Your task to perform on an android device: View the shopping cart on ebay. Search for "macbook pro" on ebay, select the first entry, add it to the cart, then select checkout. Image 0: 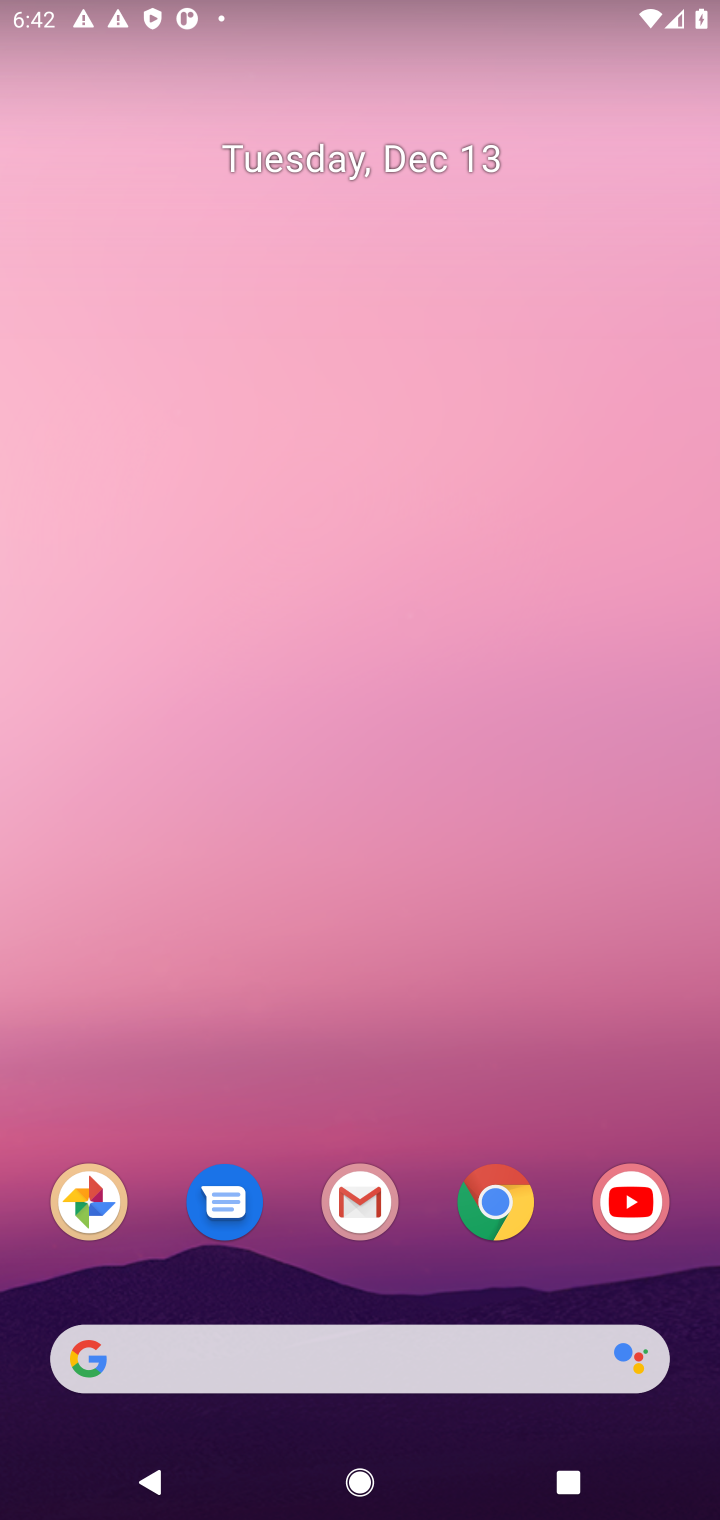
Step 0: click (503, 1207)
Your task to perform on an android device: View the shopping cart on ebay. Search for "macbook pro" on ebay, select the first entry, add it to the cart, then select checkout. Image 1: 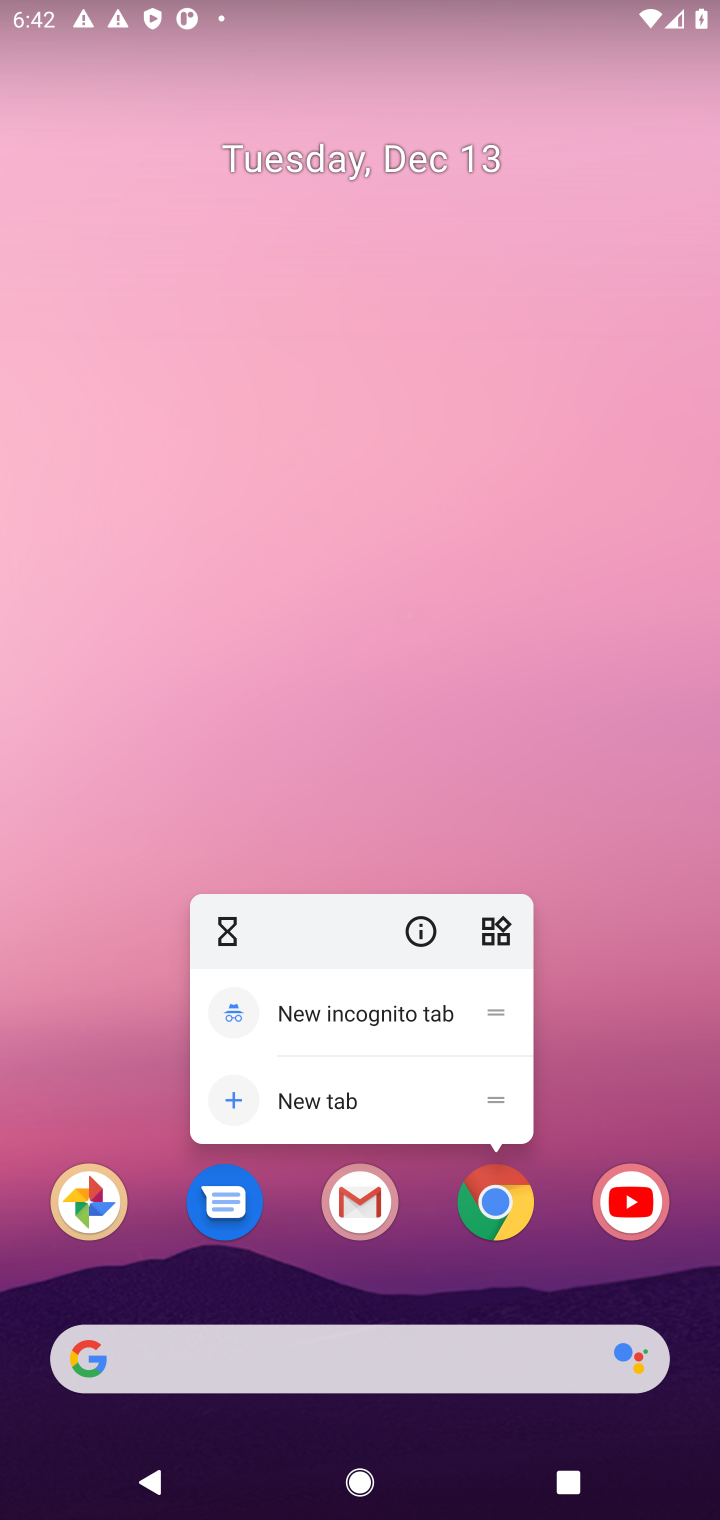
Step 1: click (503, 1207)
Your task to perform on an android device: View the shopping cart on ebay. Search for "macbook pro" on ebay, select the first entry, add it to the cart, then select checkout. Image 2: 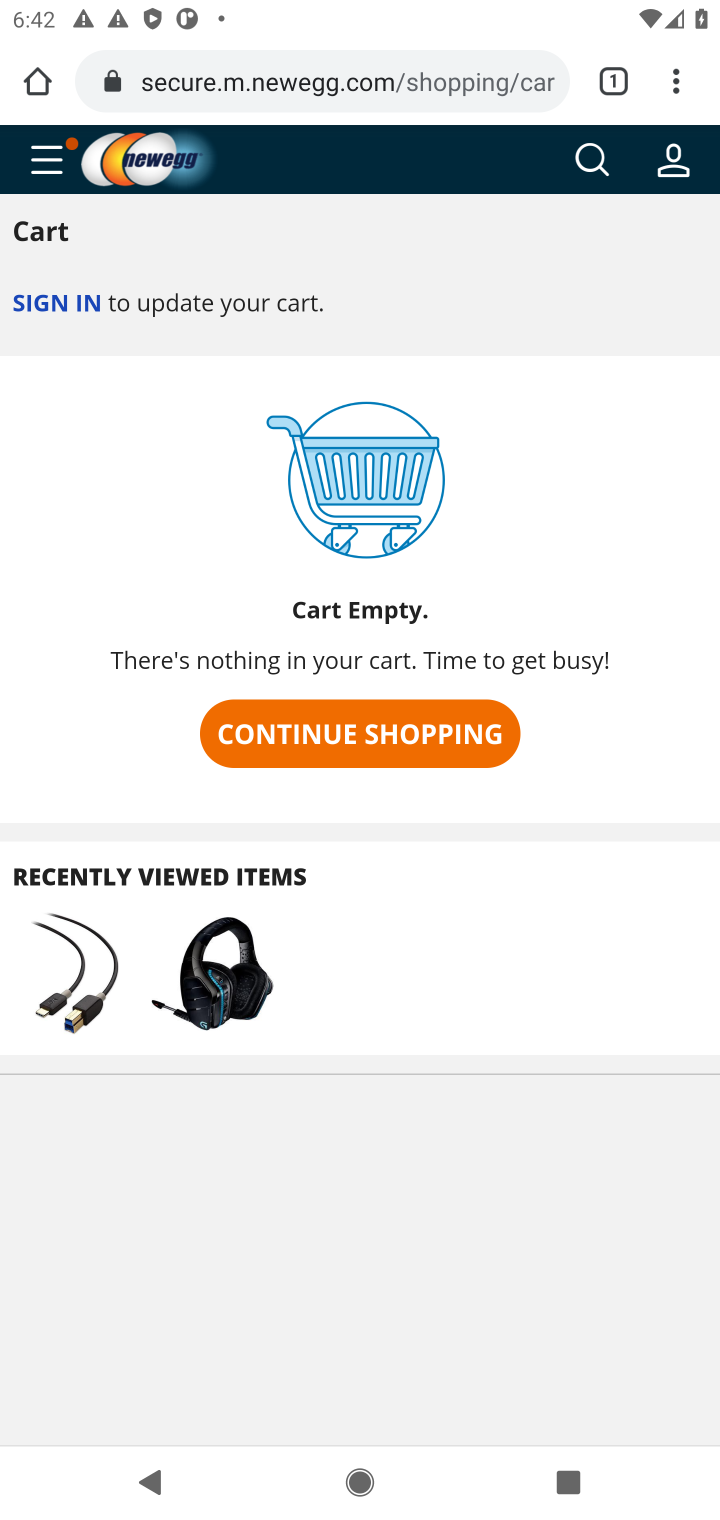
Step 2: click (332, 88)
Your task to perform on an android device: View the shopping cart on ebay. Search for "macbook pro" on ebay, select the first entry, add it to the cart, then select checkout. Image 3: 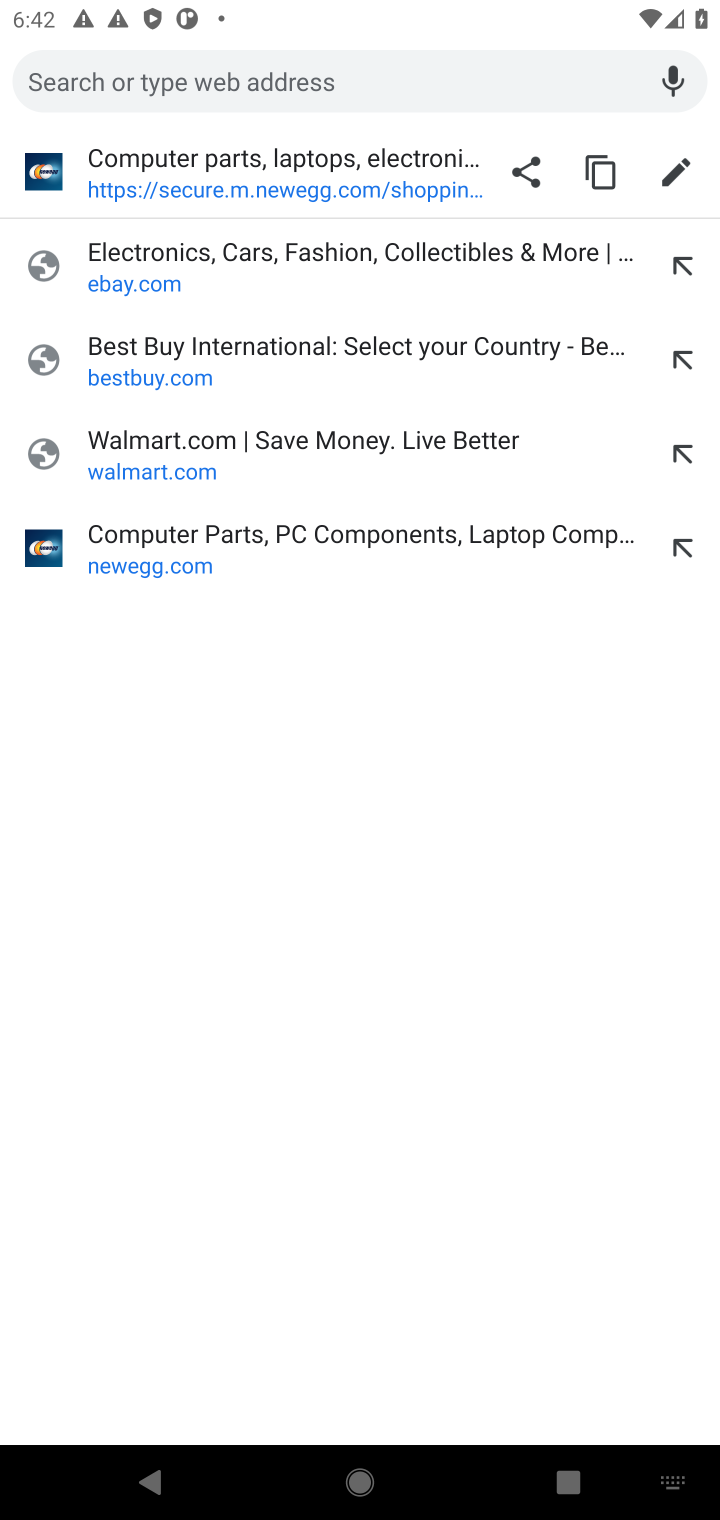
Step 3: click (141, 273)
Your task to perform on an android device: View the shopping cart on ebay. Search for "macbook pro" on ebay, select the first entry, add it to the cart, then select checkout. Image 4: 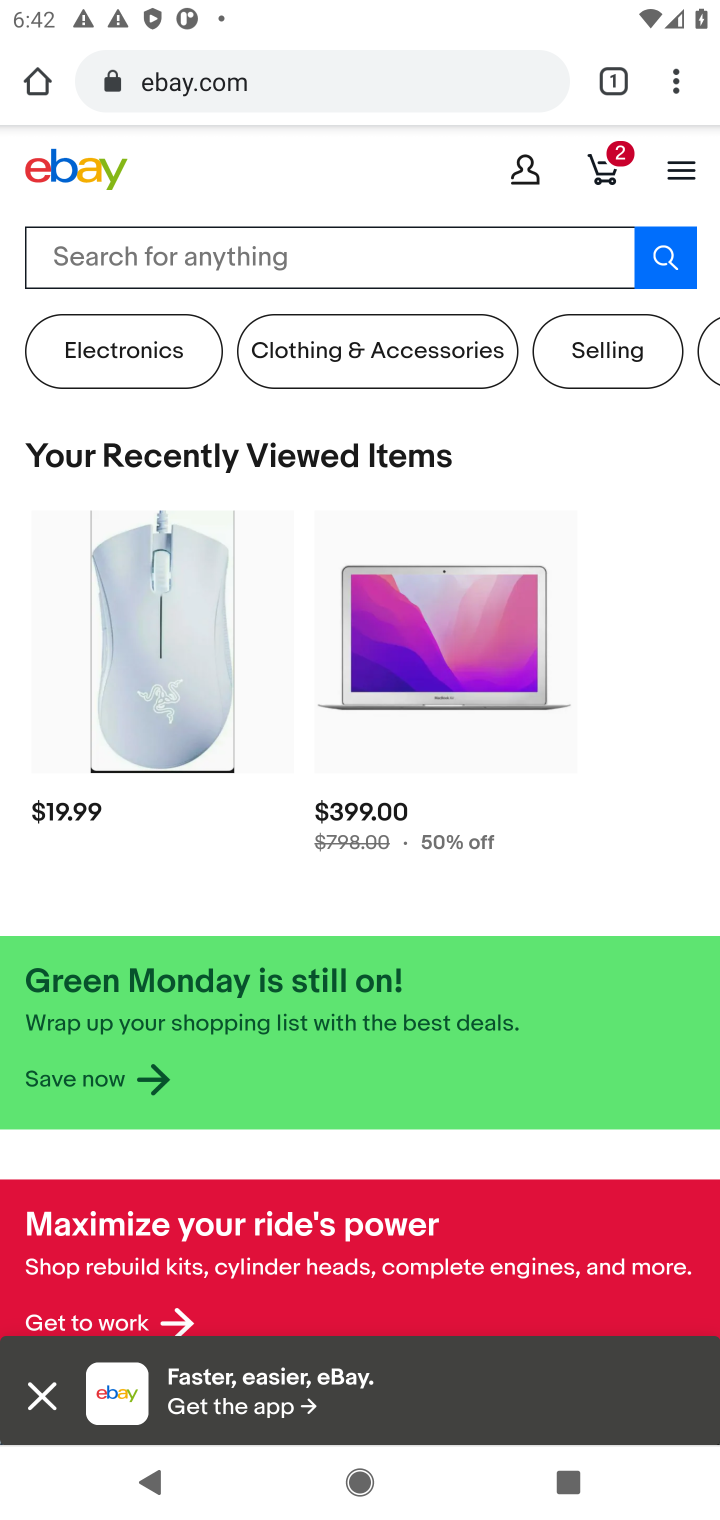
Step 4: click (605, 174)
Your task to perform on an android device: View the shopping cart on ebay. Search for "macbook pro" on ebay, select the first entry, add it to the cart, then select checkout. Image 5: 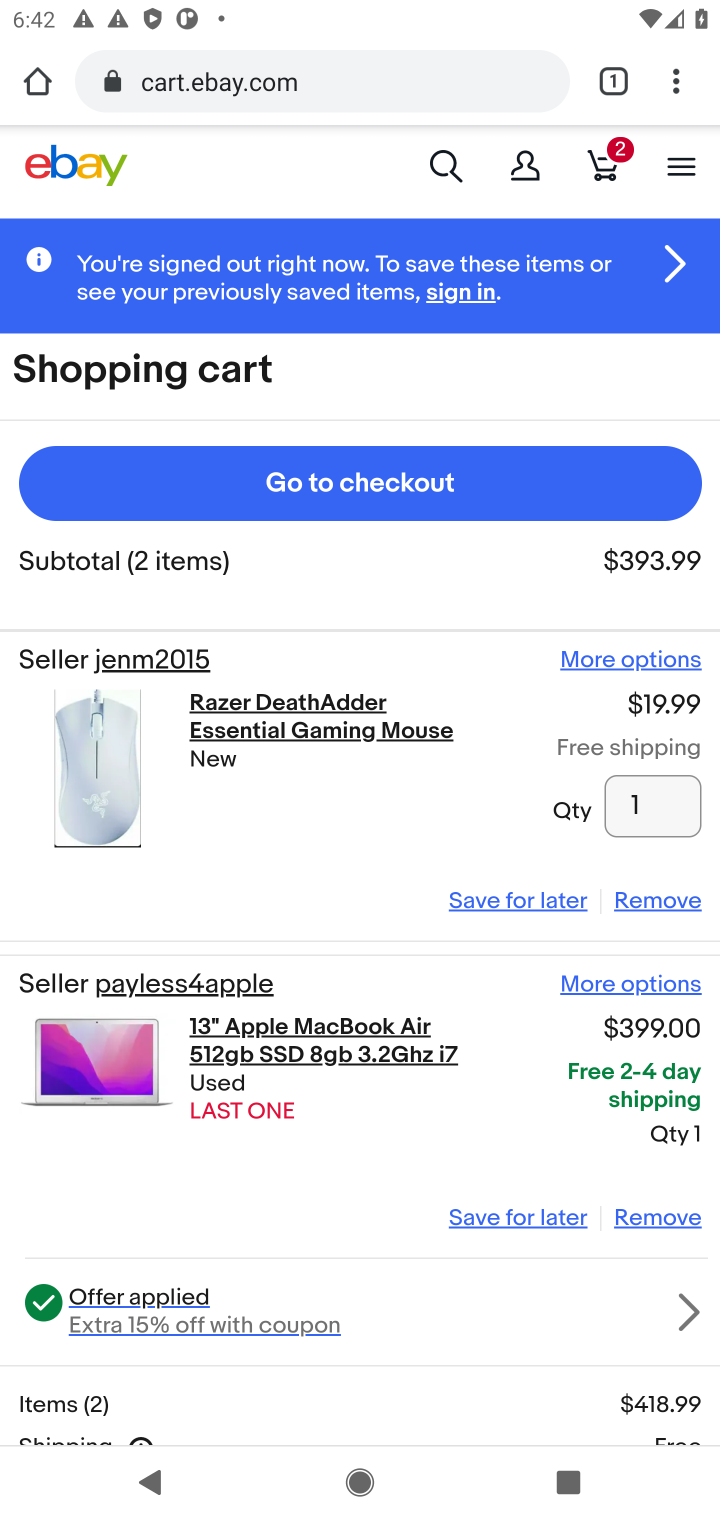
Step 5: click (440, 172)
Your task to perform on an android device: View the shopping cart on ebay. Search for "macbook pro" on ebay, select the first entry, add it to the cart, then select checkout. Image 6: 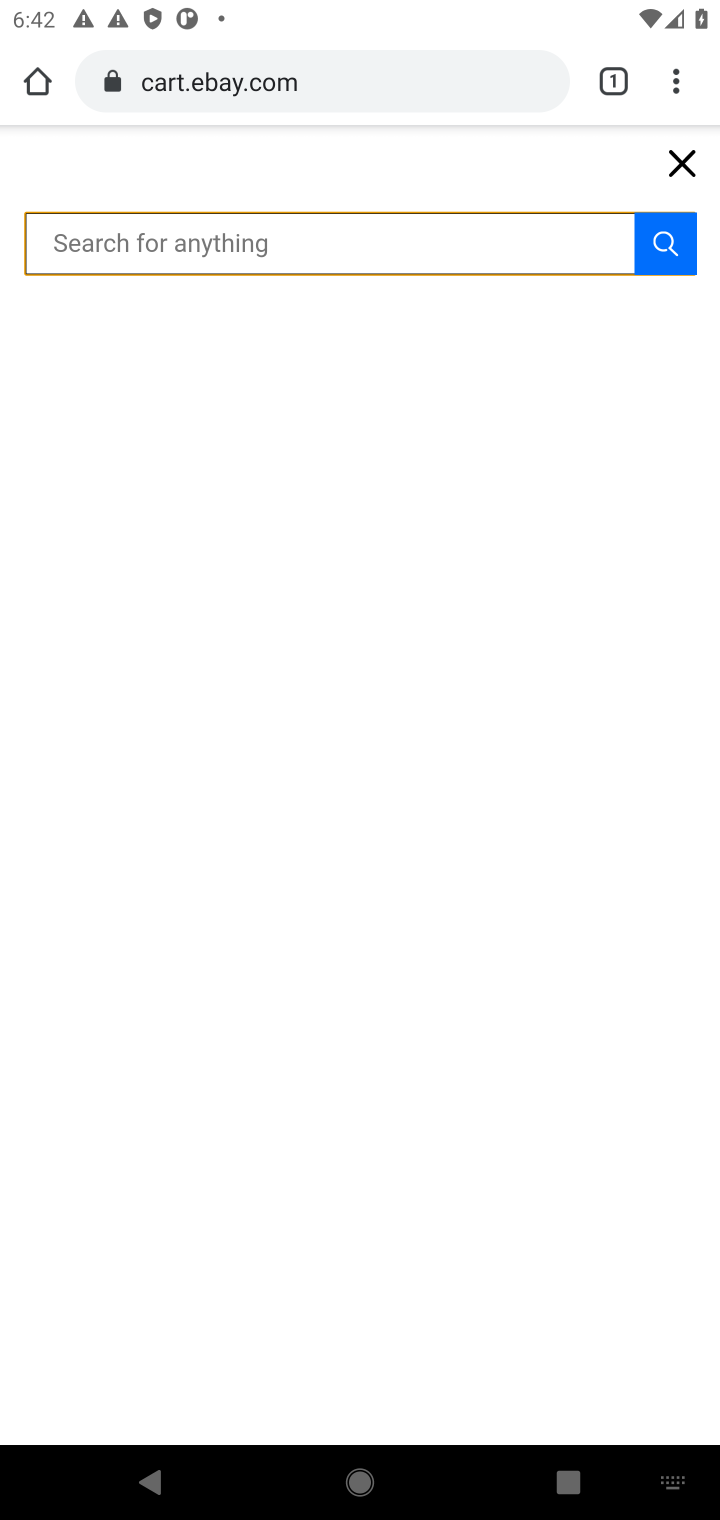
Step 6: type "macbook pro"
Your task to perform on an android device: View the shopping cart on ebay. Search for "macbook pro" on ebay, select the first entry, add it to the cart, then select checkout. Image 7: 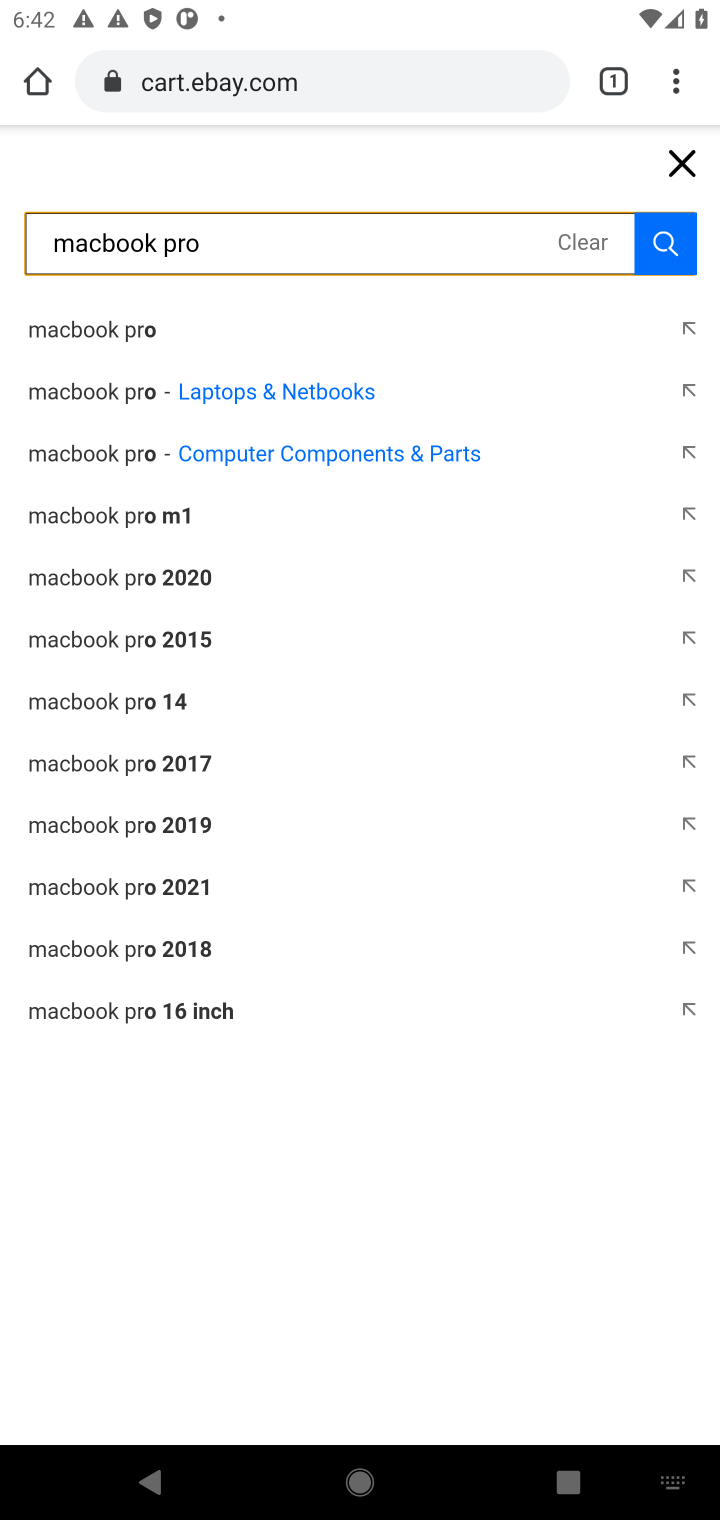
Step 7: click (63, 337)
Your task to perform on an android device: View the shopping cart on ebay. Search for "macbook pro" on ebay, select the first entry, add it to the cart, then select checkout. Image 8: 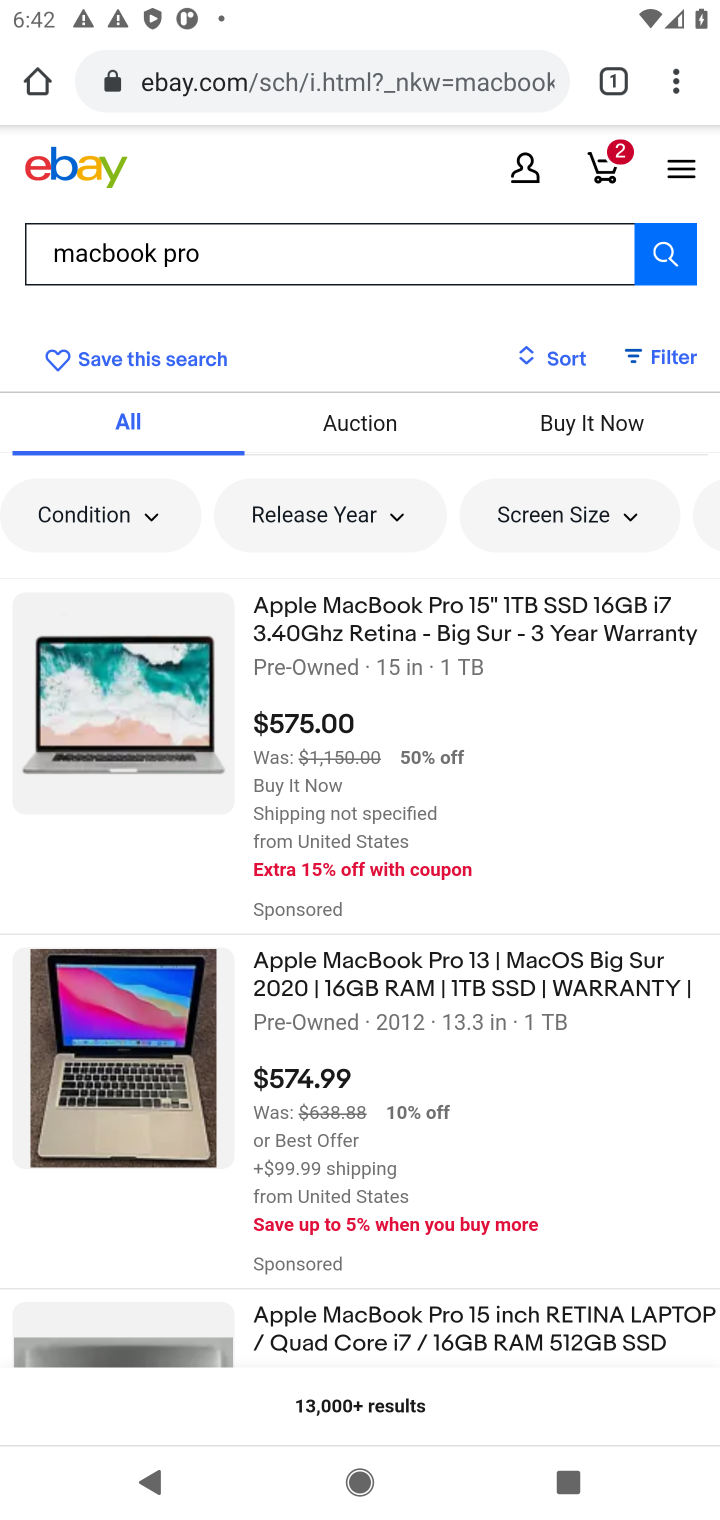
Step 8: click (320, 650)
Your task to perform on an android device: View the shopping cart on ebay. Search for "macbook pro" on ebay, select the first entry, add it to the cart, then select checkout. Image 9: 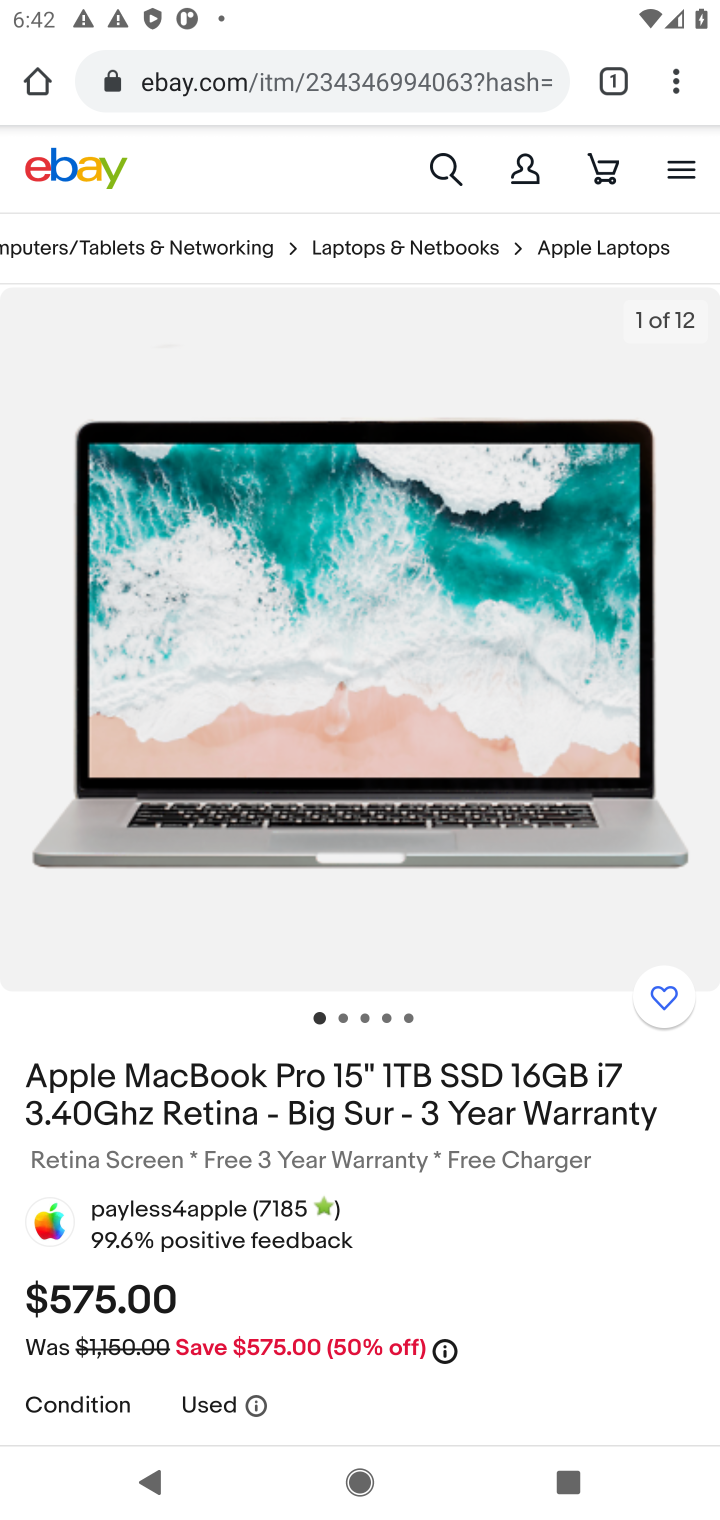
Step 9: drag from (364, 1211) to (361, 584)
Your task to perform on an android device: View the shopping cart on ebay. Search for "macbook pro" on ebay, select the first entry, add it to the cart, then select checkout. Image 10: 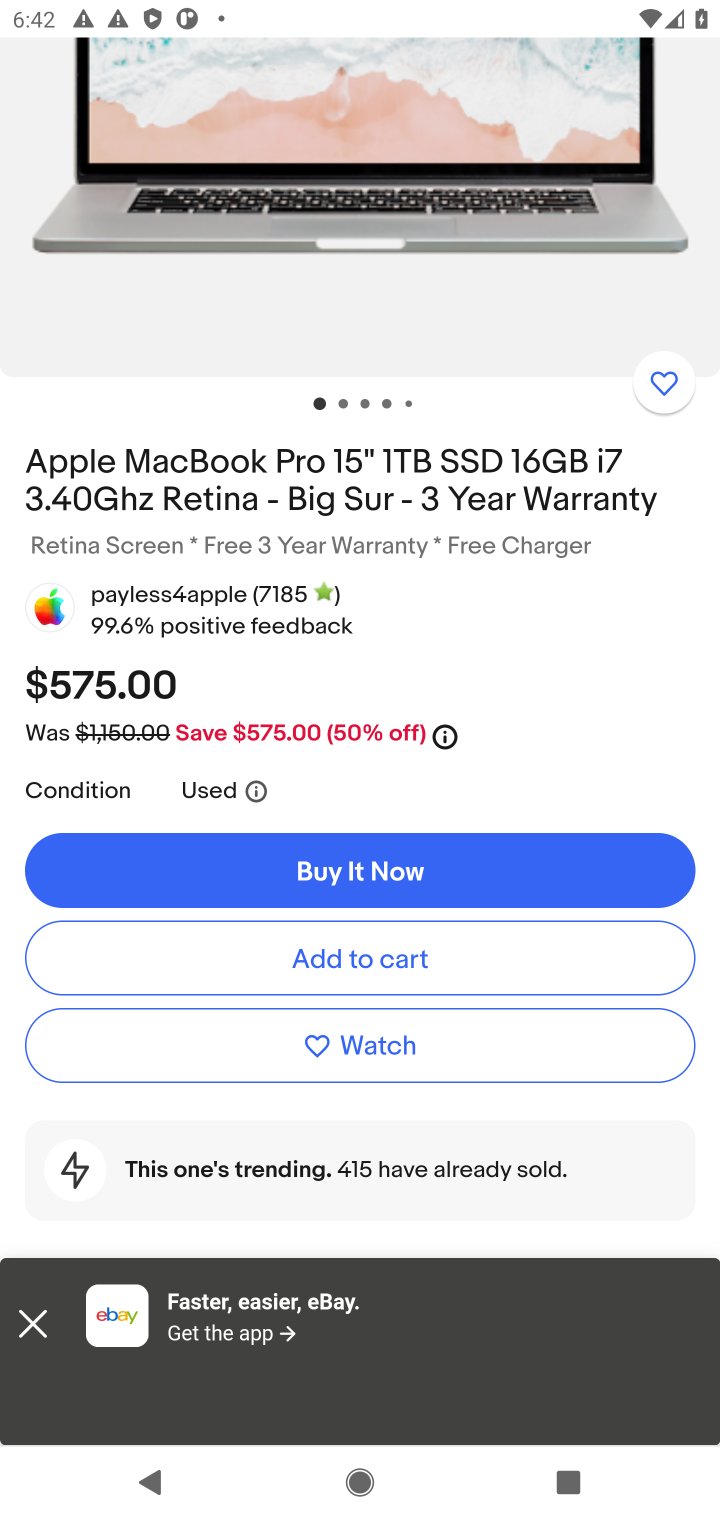
Step 10: click (306, 958)
Your task to perform on an android device: View the shopping cart on ebay. Search for "macbook pro" on ebay, select the first entry, add it to the cart, then select checkout. Image 11: 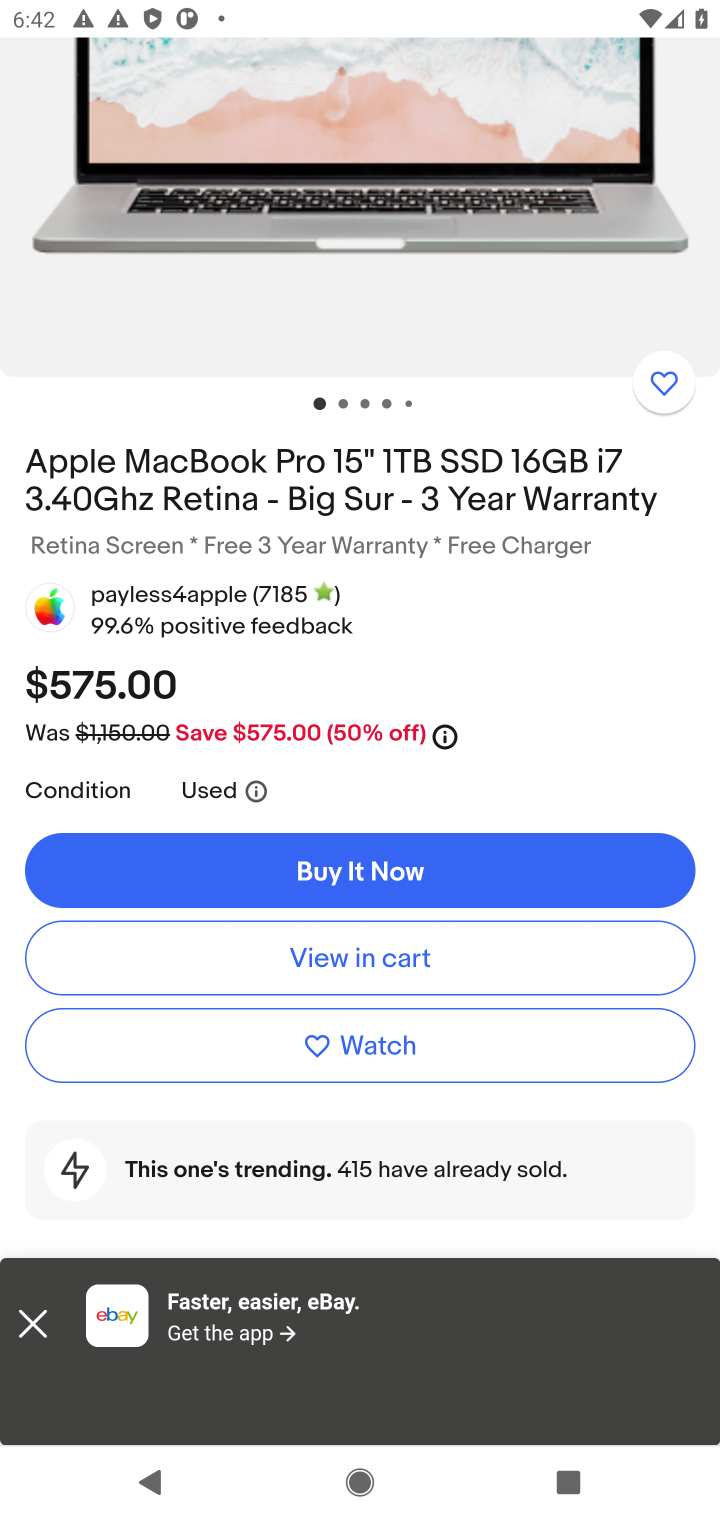
Step 11: click (306, 958)
Your task to perform on an android device: View the shopping cart on ebay. Search for "macbook pro" on ebay, select the first entry, add it to the cart, then select checkout. Image 12: 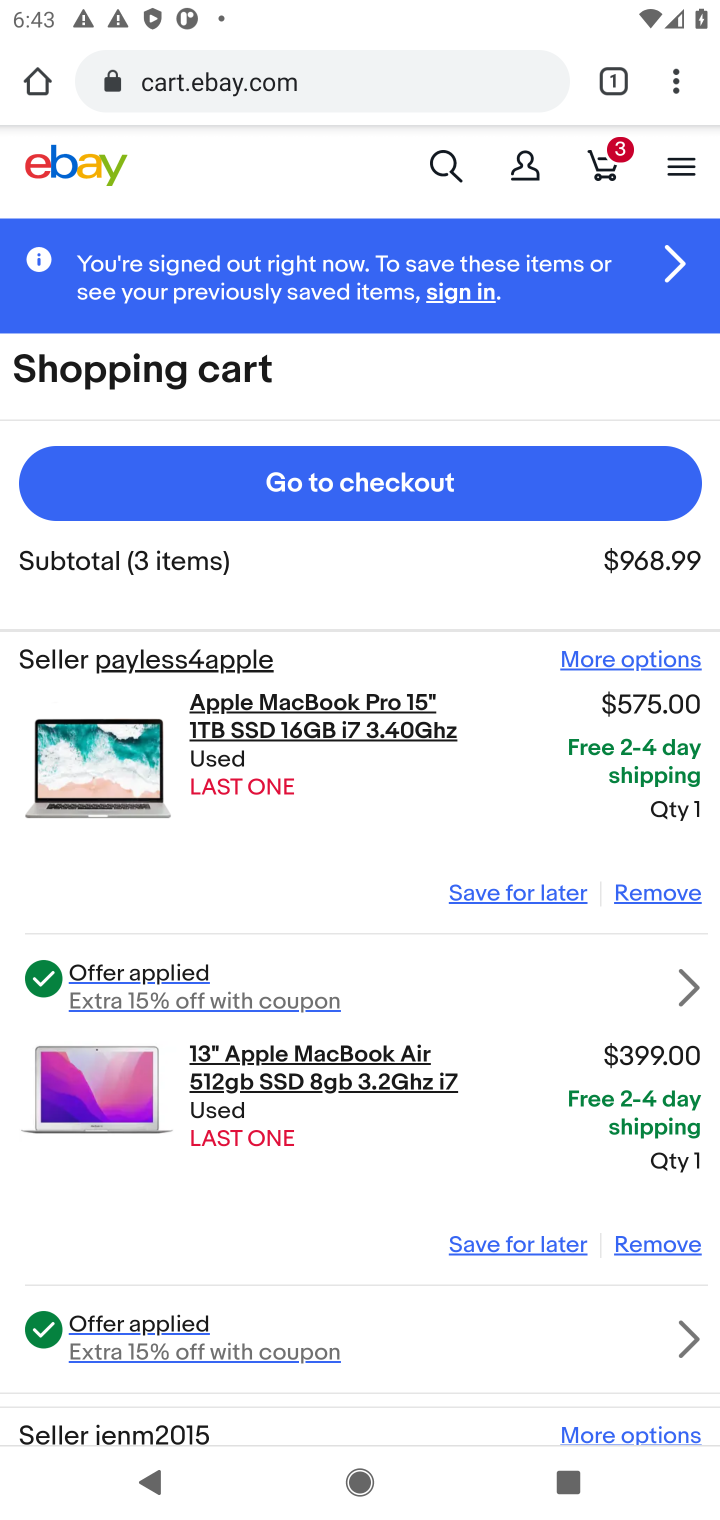
Step 12: click (304, 485)
Your task to perform on an android device: View the shopping cart on ebay. Search for "macbook pro" on ebay, select the first entry, add it to the cart, then select checkout. Image 13: 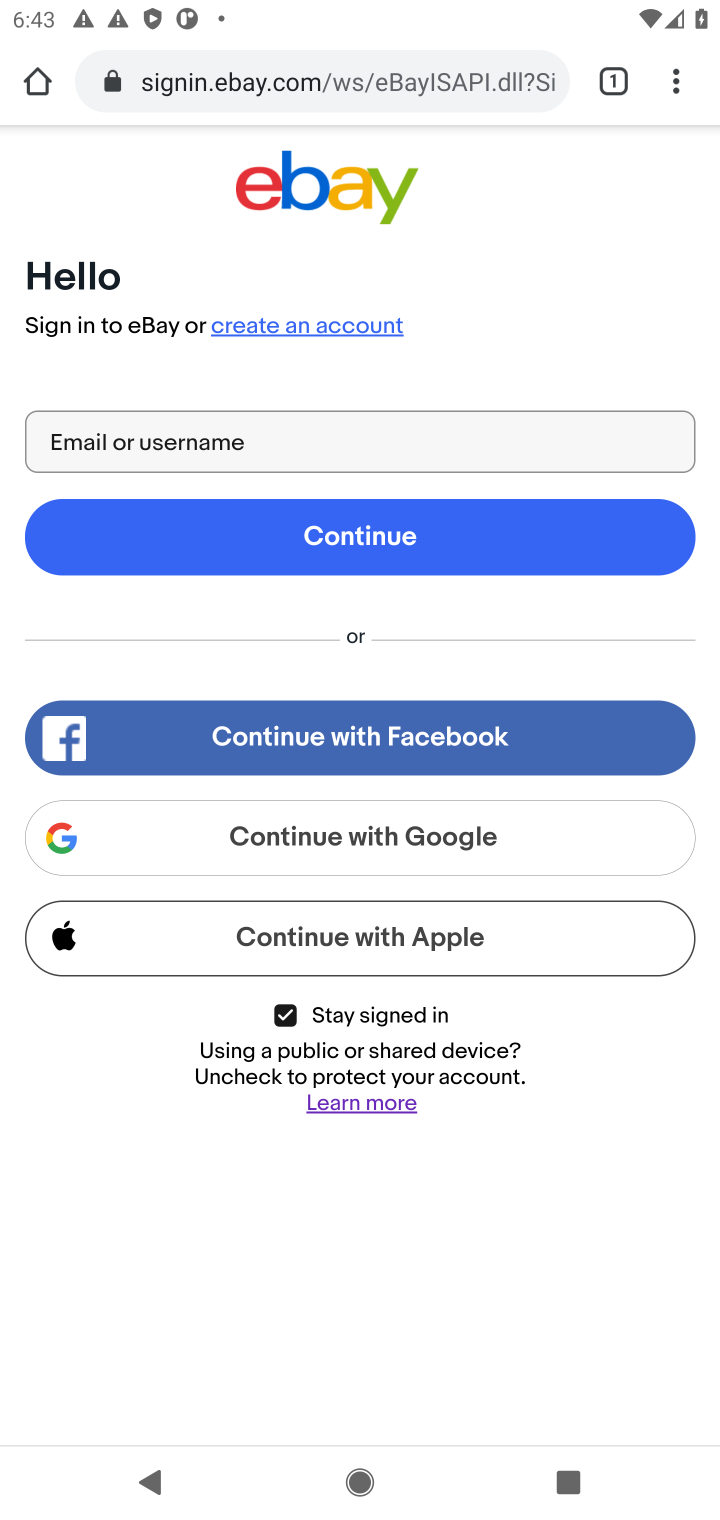
Step 13: task complete